Your task to perform on an android device: turn on notifications settings in the gmail app Image 0: 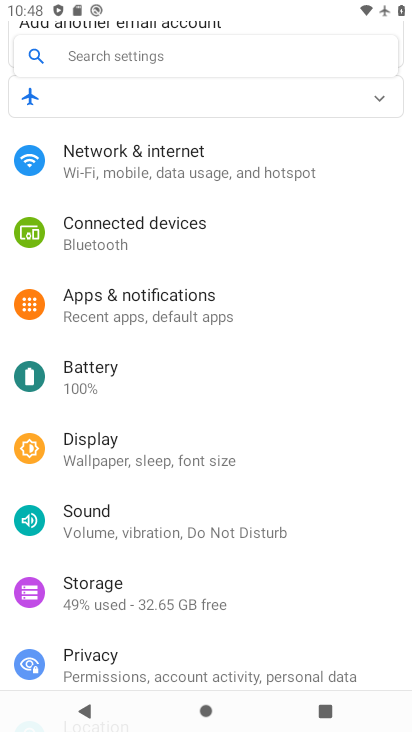
Step 0: press home button
Your task to perform on an android device: turn on notifications settings in the gmail app Image 1: 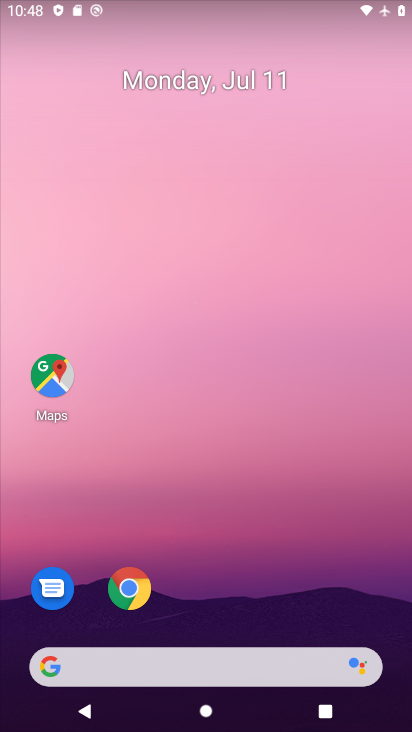
Step 1: drag from (203, 670) to (382, 130)
Your task to perform on an android device: turn on notifications settings in the gmail app Image 2: 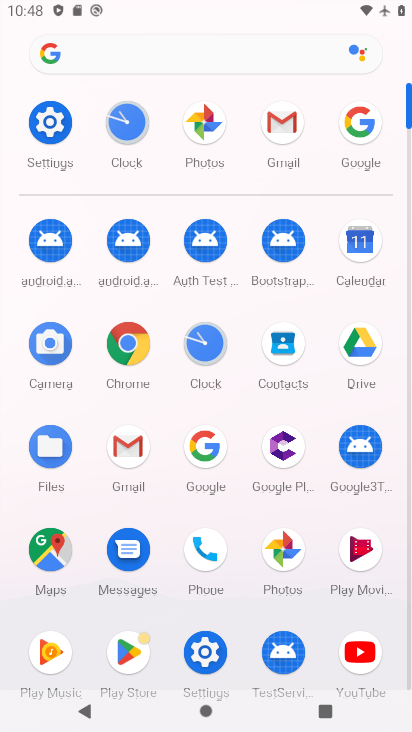
Step 2: click (288, 137)
Your task to perform on an android device: turn on notifications settings in the gmail app Image 3: 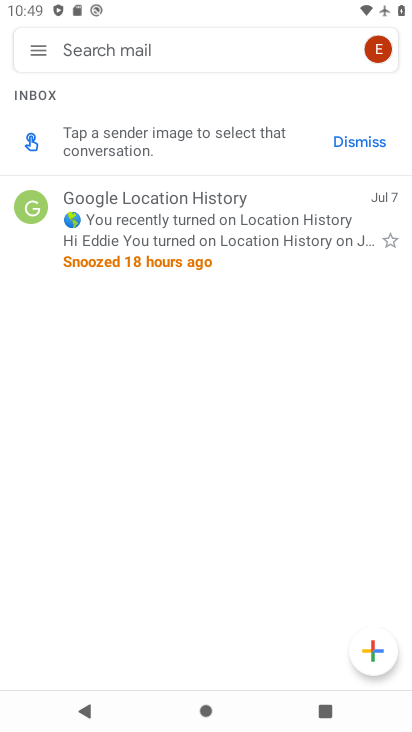
Step 3: click (46, 50)
Your task to perform on an android device: turn on notifications settings in the gmail app Image 4: 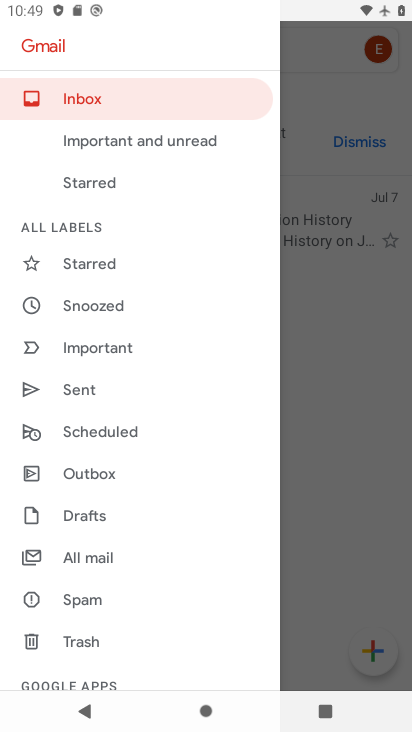
Step 4: drag from (127, 666) to (241, 255)
Your task to perform on an android device: turn on notifications settings in the gmail app Image 5: 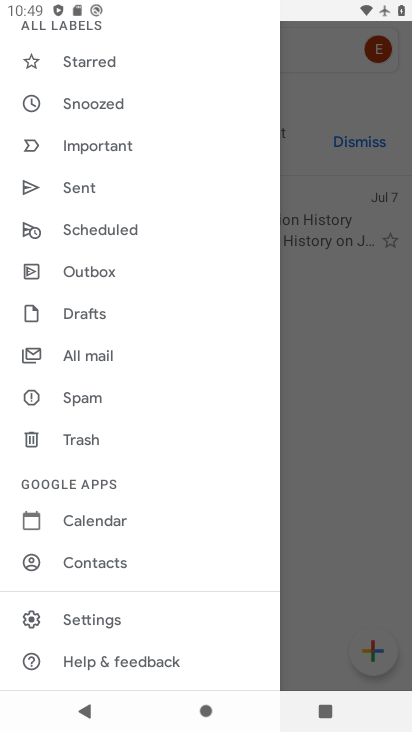
Step 5: click (117, 627)
Your task to perform on an android device: turn on notifications settings in the gmail app Image 6: 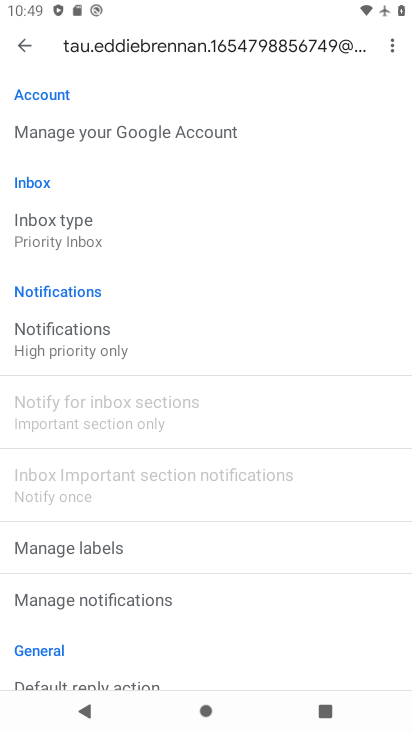
Step 6: click (82, 340)
Your task to perform on an android device: turn on notifications settings in the gmail app Image 7: 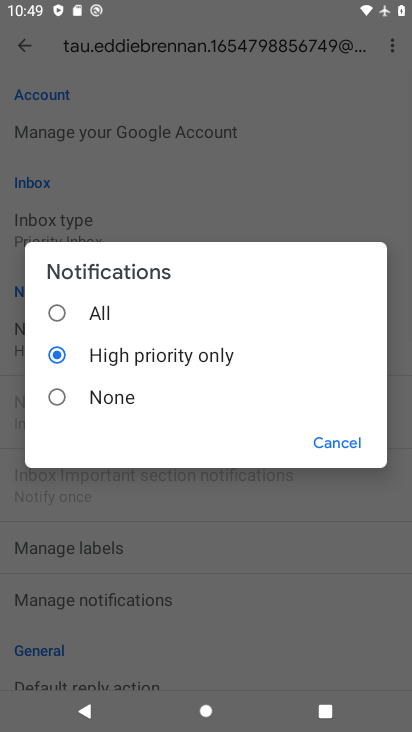
Step 7: click (58, 313)
Your task to perform on an android device: turn on notifications settings in the gmail app Image 8: 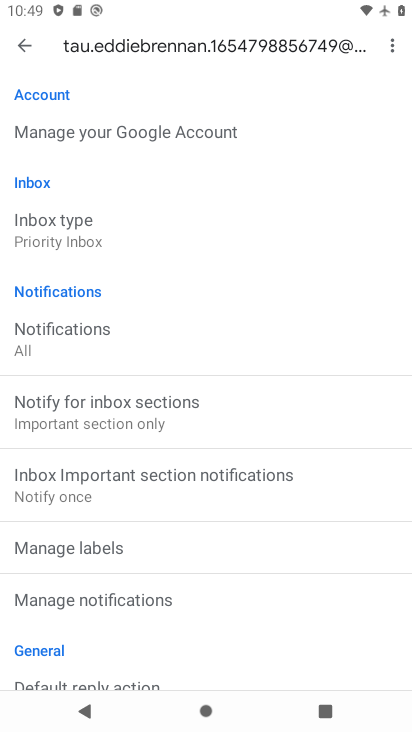
Step 8: task complete